Your task to perform on an android device: Open wifi settings Image 0: 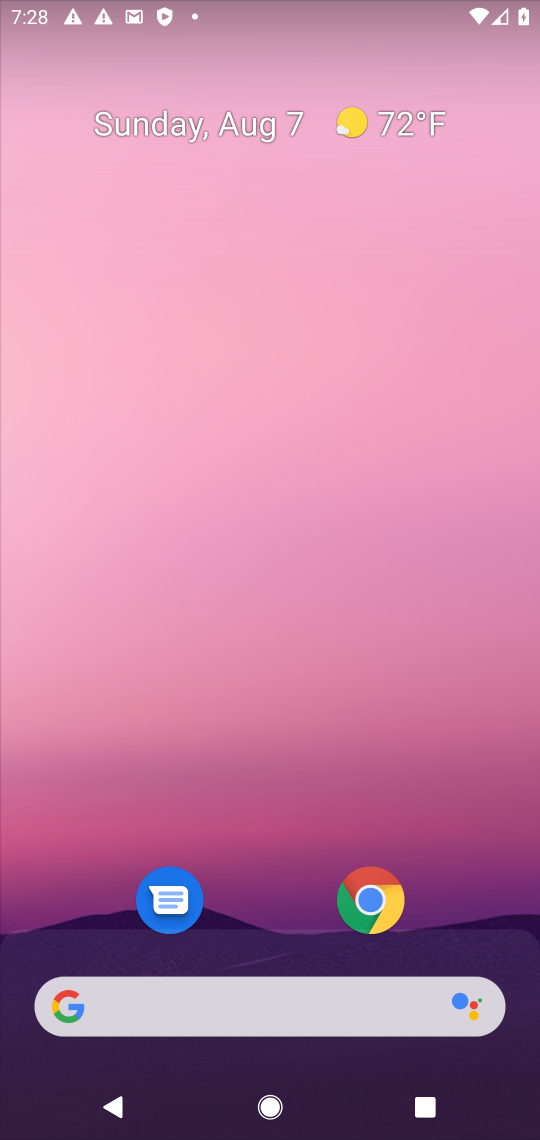
Step 0: drag from (268, 1038) to (533, 154)
Your task to perform on an android device: Open wifi settings Image 1: 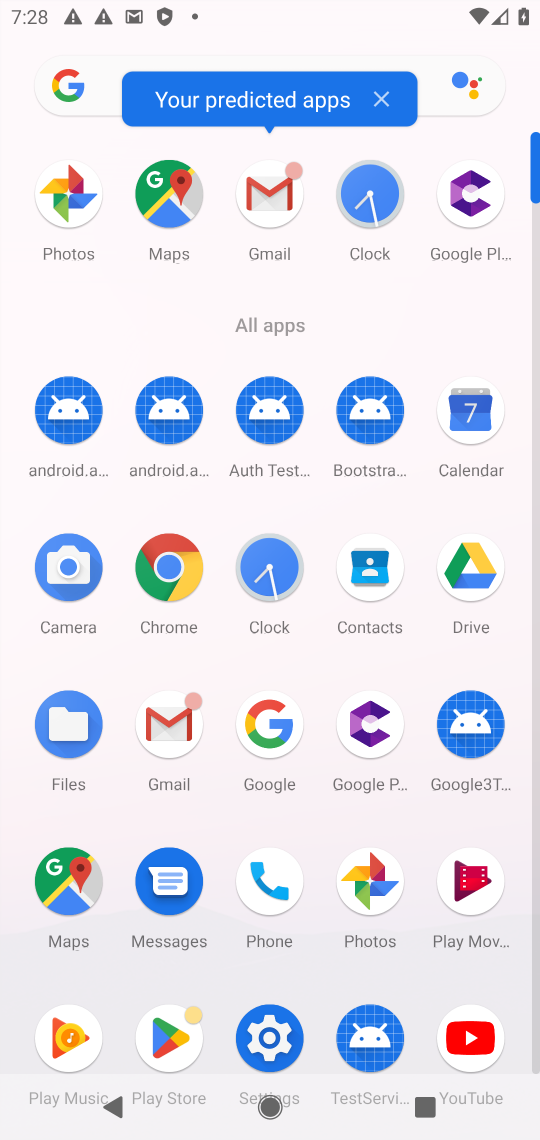
Step 1: click (259, 1034)
Your task to perform on an android device: Open wifi settings Image 2: 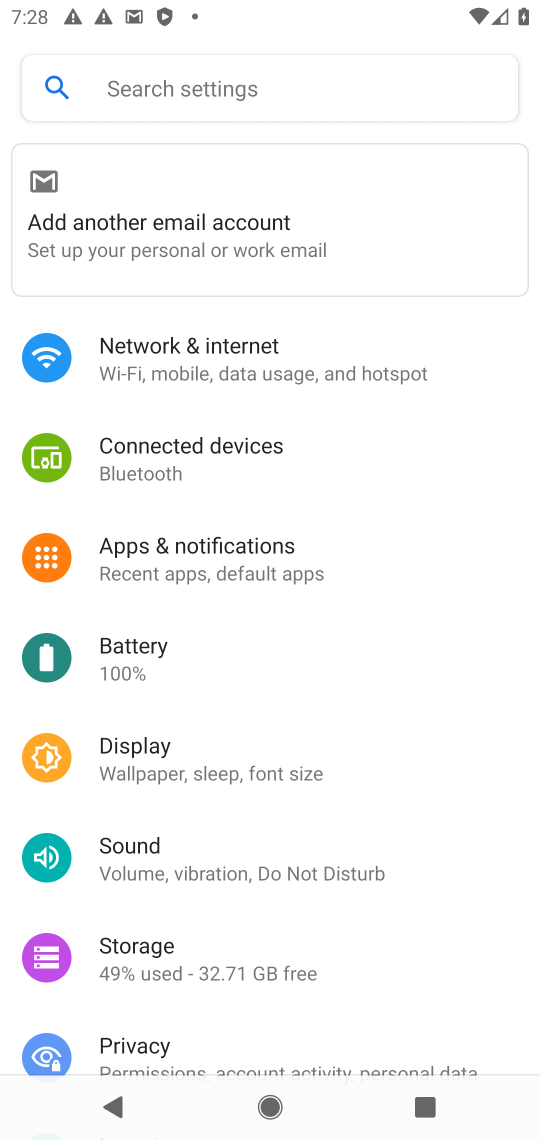
Step 2: click (223, 347)
Your task to perform on an android device: Open wifi settings Image 3: 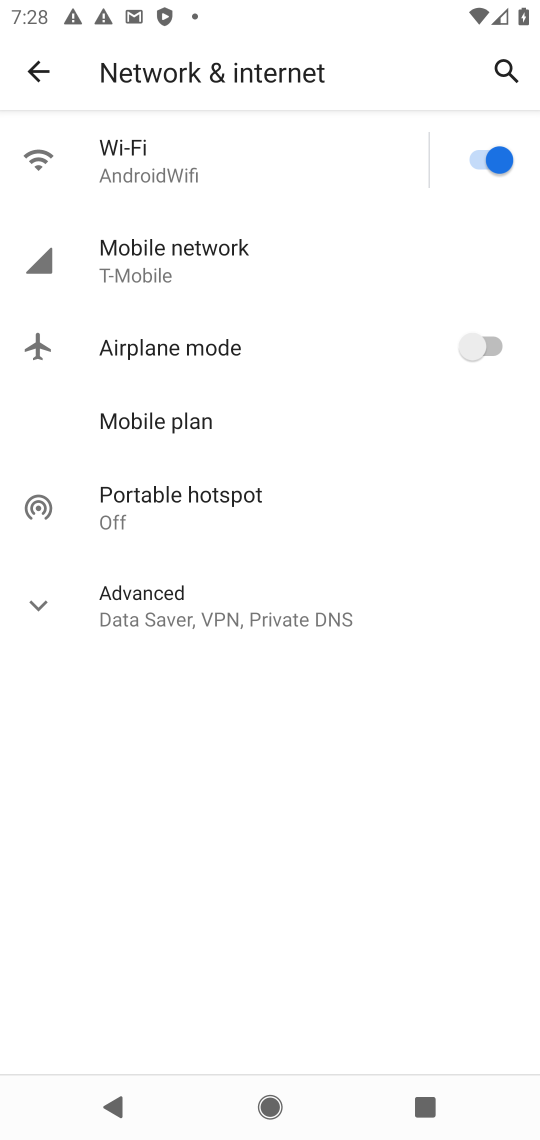
Step 3: click (155, 164)
Your task to perform on an android device: Open wifi settings Image 4: 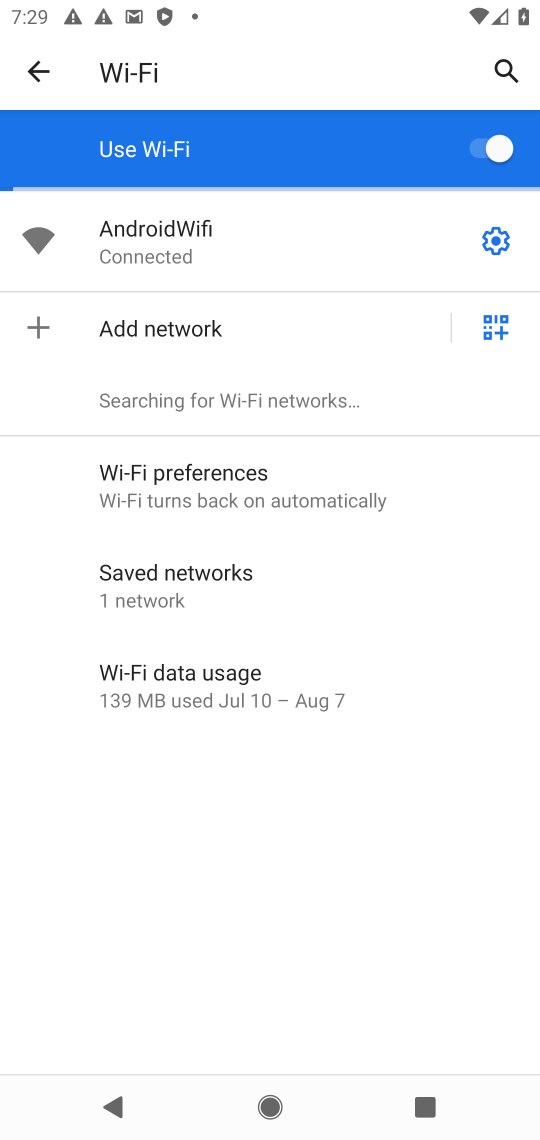
Step 4: task complete